Your task to perform on an android device: open a bookmark in the chrome app Image 0: 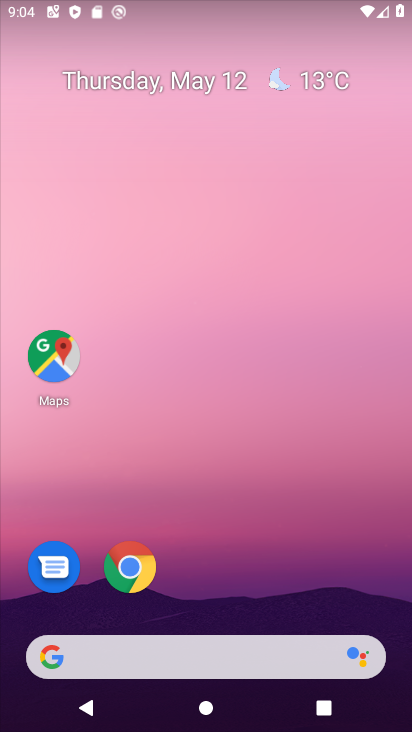
Step 0: click (130, 571)
Your task to perform on an android device: open a bookmark in the chrome app Image 1: 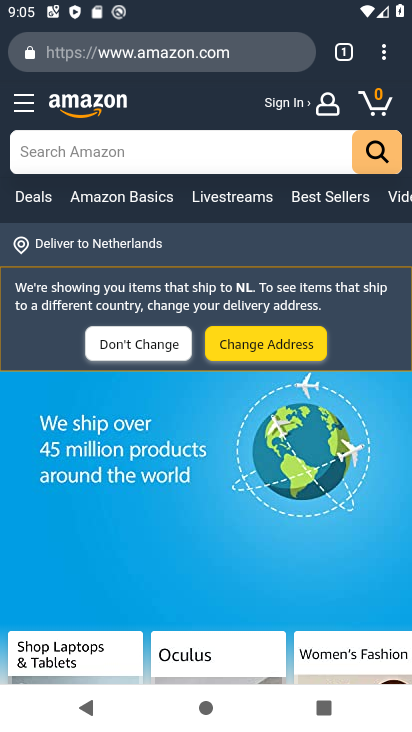
Step 1: click (387, 50)
Your task to perform on an android device: open a bookmark in the chrome app Image 2: 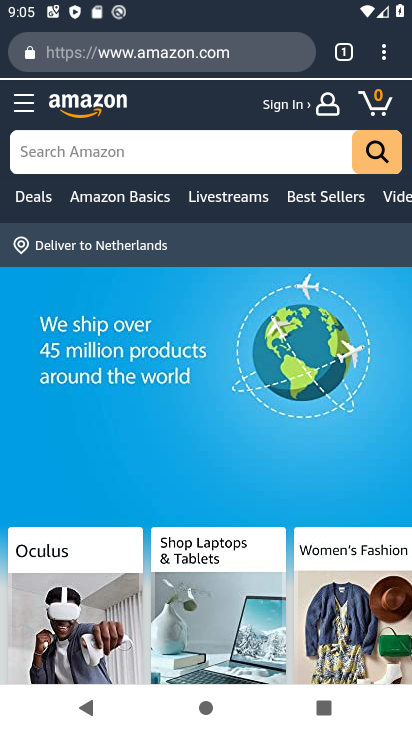
Step 2: click (387, 51)
Your task to perform on an android device: open a bookmark in the chrome app Image 3: 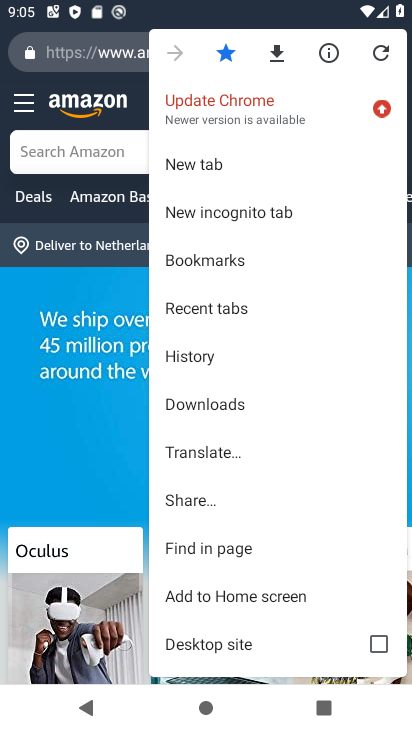
Step 3: click (256, 258)
Your task to perform on an android device: open a bookmark in the chrome app Image 4: 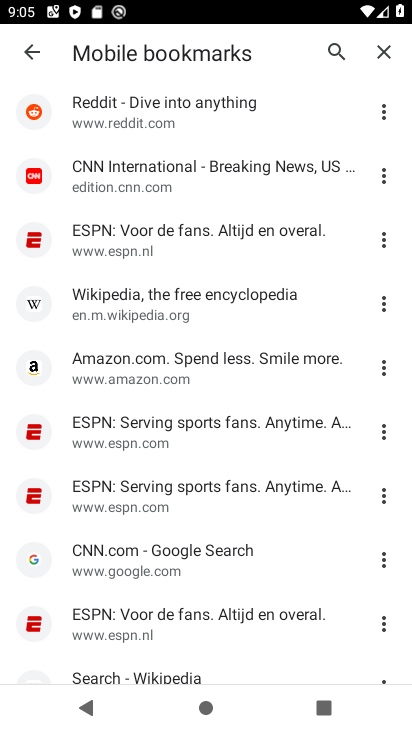
Step 4: task complete